Your task to perform on an android device: delete the emails in spam in the gmail app Image 0: 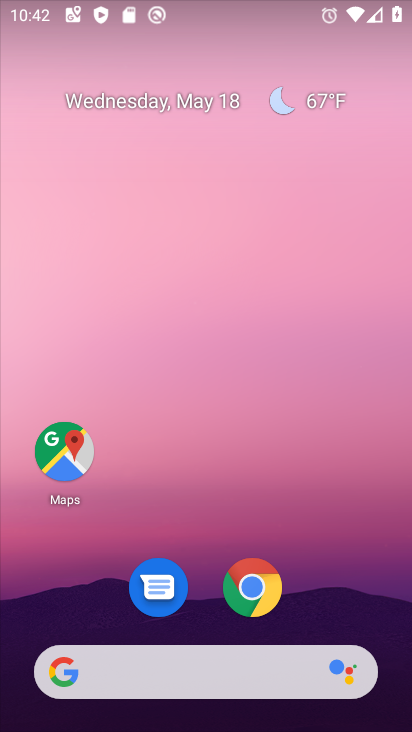
Step 0: drag from (315, 603) to (249, 131)
Your task to perform on an android device: delete the emails in spam in the gmail app Image 1: 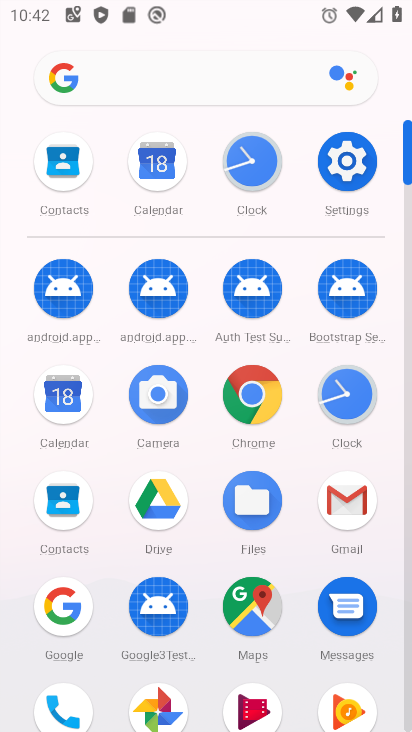
Step 1: click (350, 504)
Your task to perform on an android device: delete the emails in spam in the gmail app Image 2: 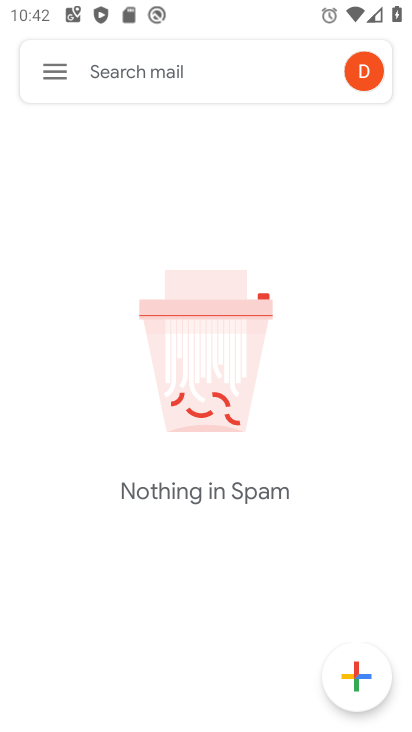
Step 2: click (57, 77)
Your task to perform on an android device: delete the emails in spam in the gmail app Image 3: 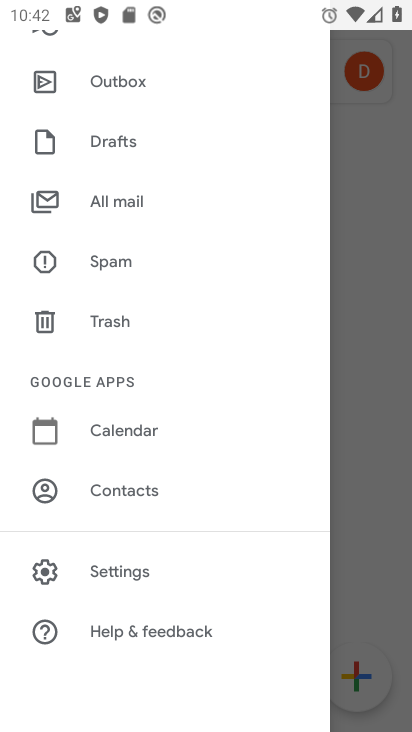
Step 3: click (137, 257)
Your task to perform on an android device: delete the emails in spam in the gmail app Image 4: 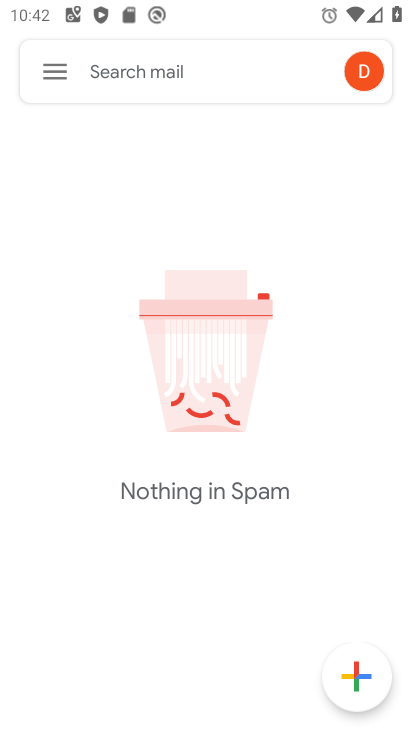
Step 4: task complete